Your task to perform on an android device: What is the recent news? Image 0: 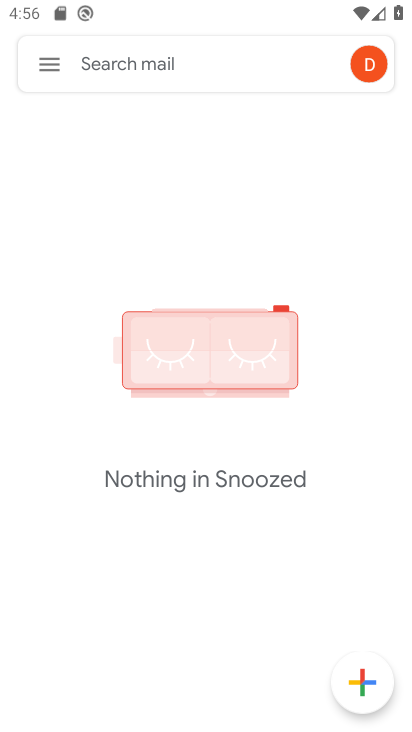
Step 0: press home button
Your task to perform on an android device: What is the recent news? Image 1: 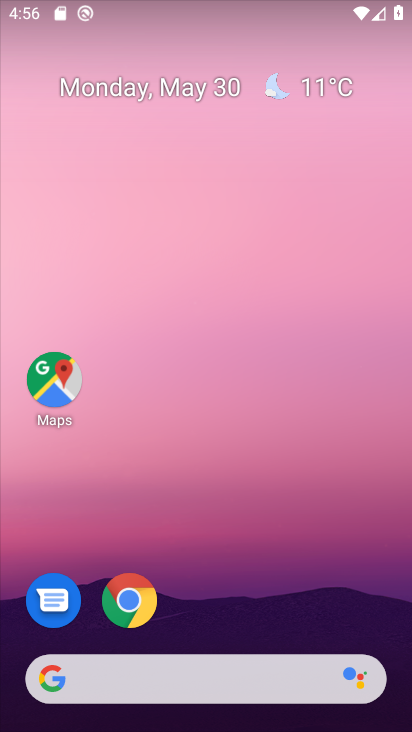
Step 1: drag from (270, 561) to (352, 122)
Your task to perform on an android device: What is the recent news? Image 2: 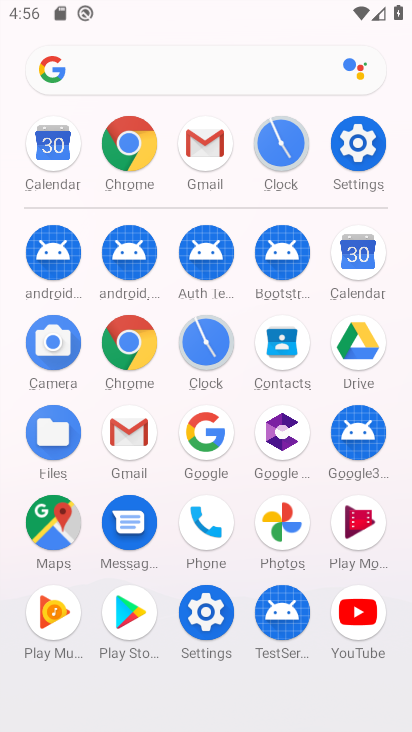
Step 2: click (120, 152)
Your task to perform on an android device: What is the recent news? Image 3: 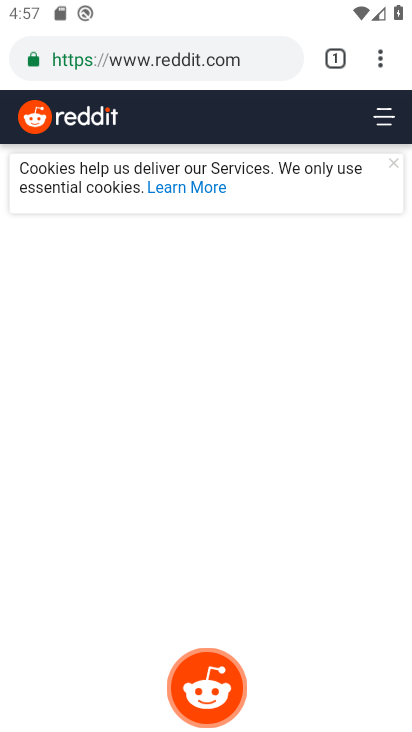
Step 3: task complete